Your task to perform on an android device: Open settings Image 0: 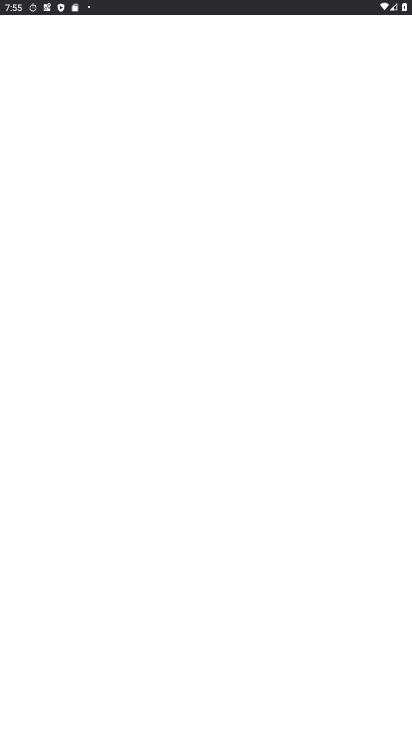
Step 0: click (134, 660)
Your task to perform on an android device: Open settings Image 1: 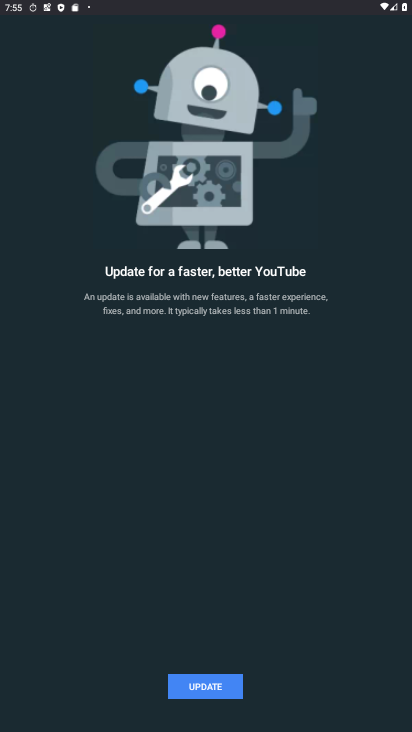
Step 1: press home button
Your task to perform on an android device: Open settings Image 2: 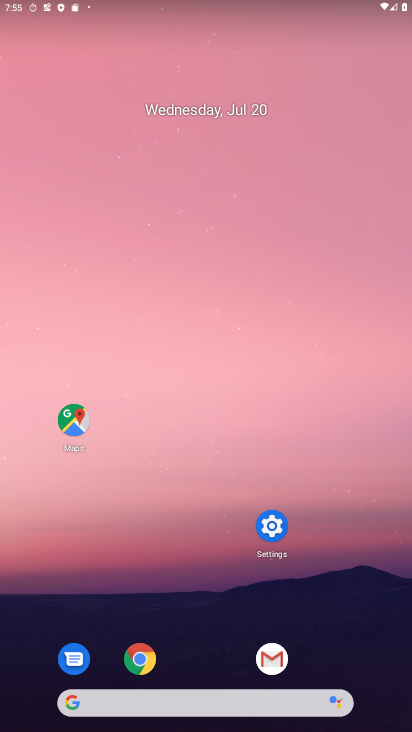
Step 2: click (147, 663)
Your task to perform on an android device: Open settings Image 3: 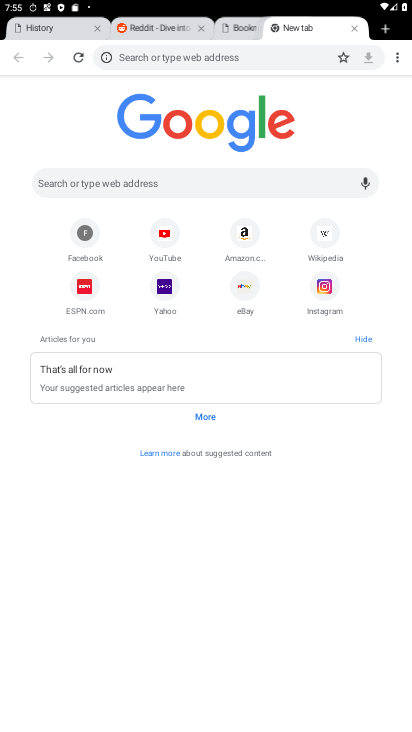
Step 3: click (399, 61)
Your task to perform on an android device: Open settings Image 4: 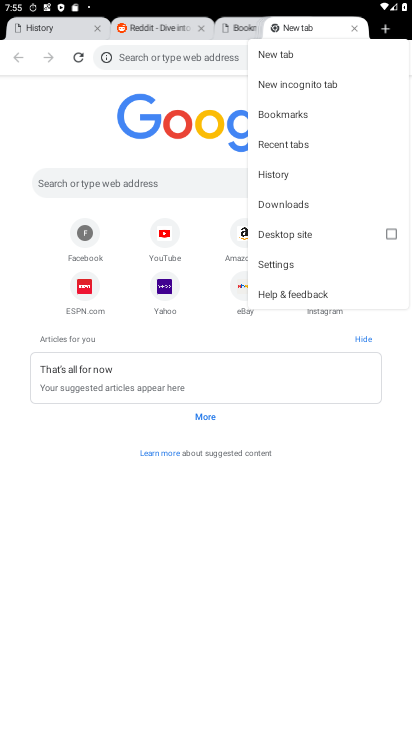
Step 4: click (291, 264)
Your task to perform on an android device: Open settings Image 5: 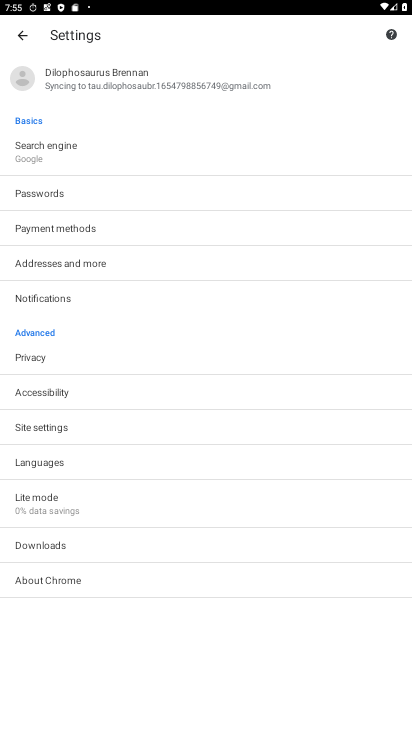
Step 5: task complete